Your task to perform on an android device: change the clock style Image 0: 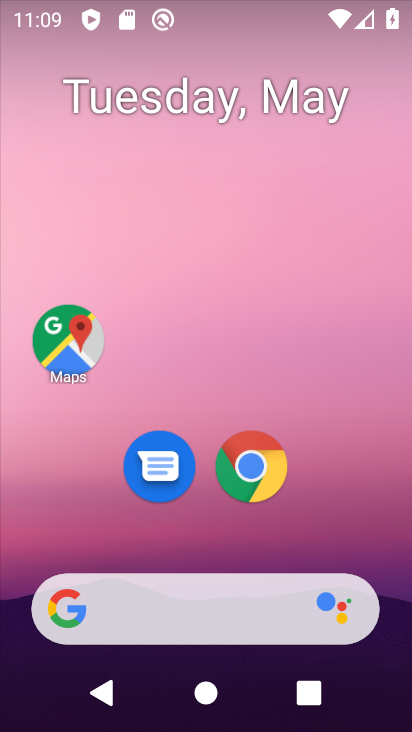
Step 0: drag from (214, 486) to (329, 6)
Your task to perform on an android device: change the clock style Image 1: 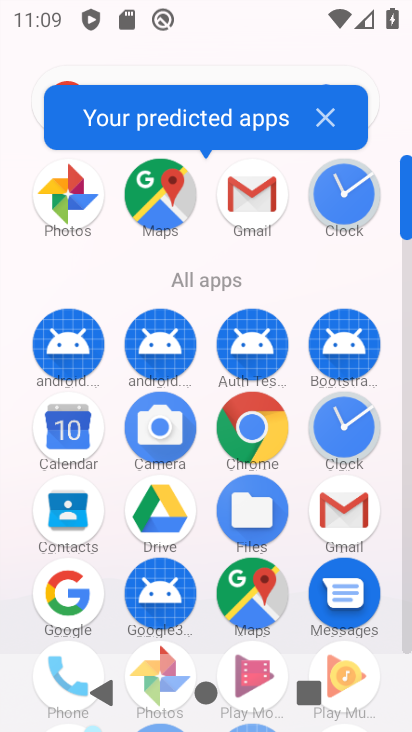
Step 1: click (321, 436)
Your task to perform on an android device: change the clock style Image 2: 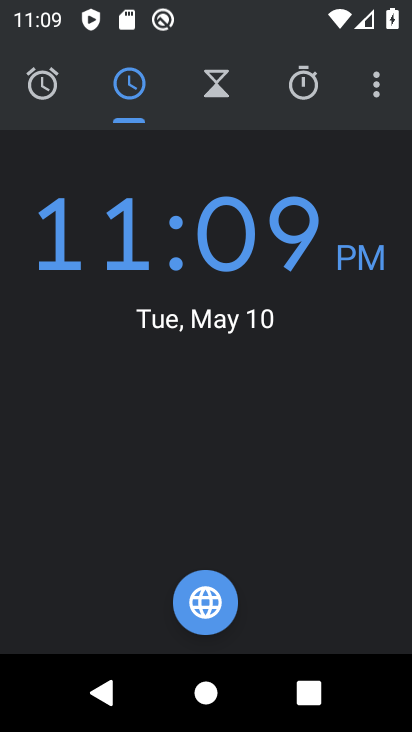
Step 2: click (368, 83)
Your task to perform on an android device: change the clock style Image 3: 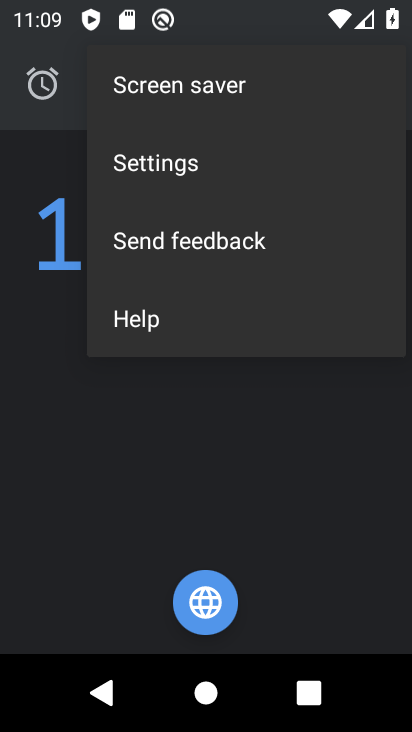
Step 3: click (188, 182)
Your task to perform on an android device: change the clock style Image 4: 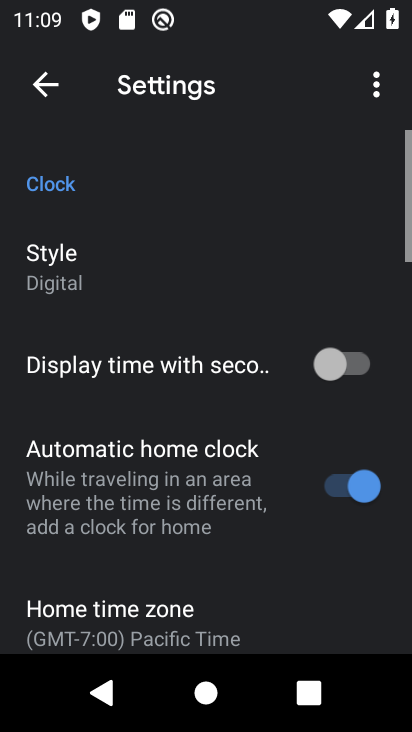
Step 4: click (83, 280)
Your task to perform on an android device: change the clock style Image 5: 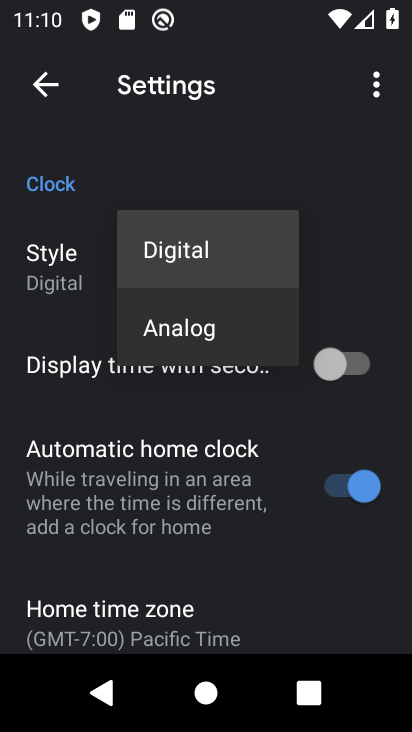
Step 5: click (180, 327)
Your task to perform on an android device: change the clock style Image 6: 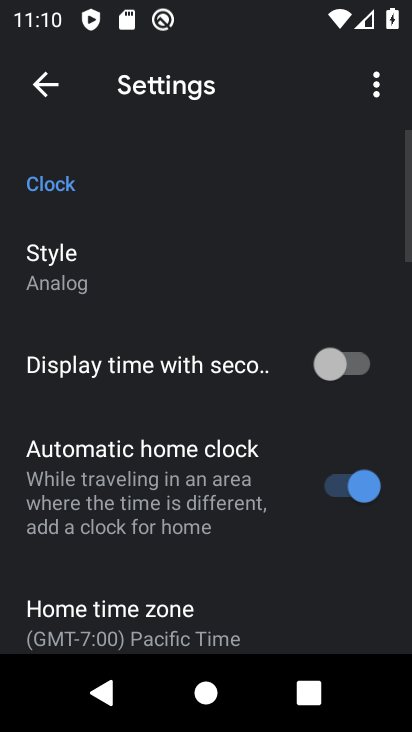
Step 6: task complete